Your task to perform on an android device: turn notification dots off Image 0: 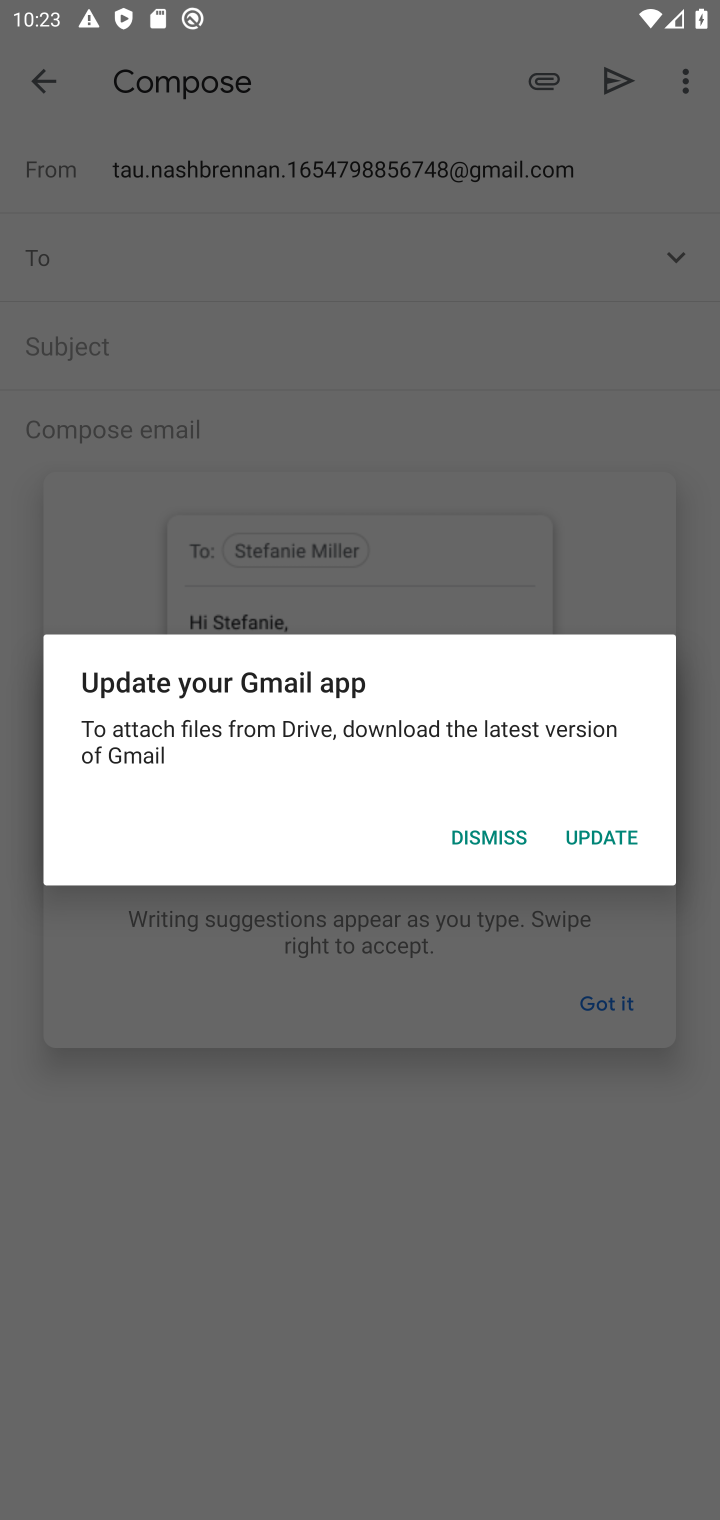
Step 0: press home button
Your task to perform on an android device: turn notification dots off Image 1: 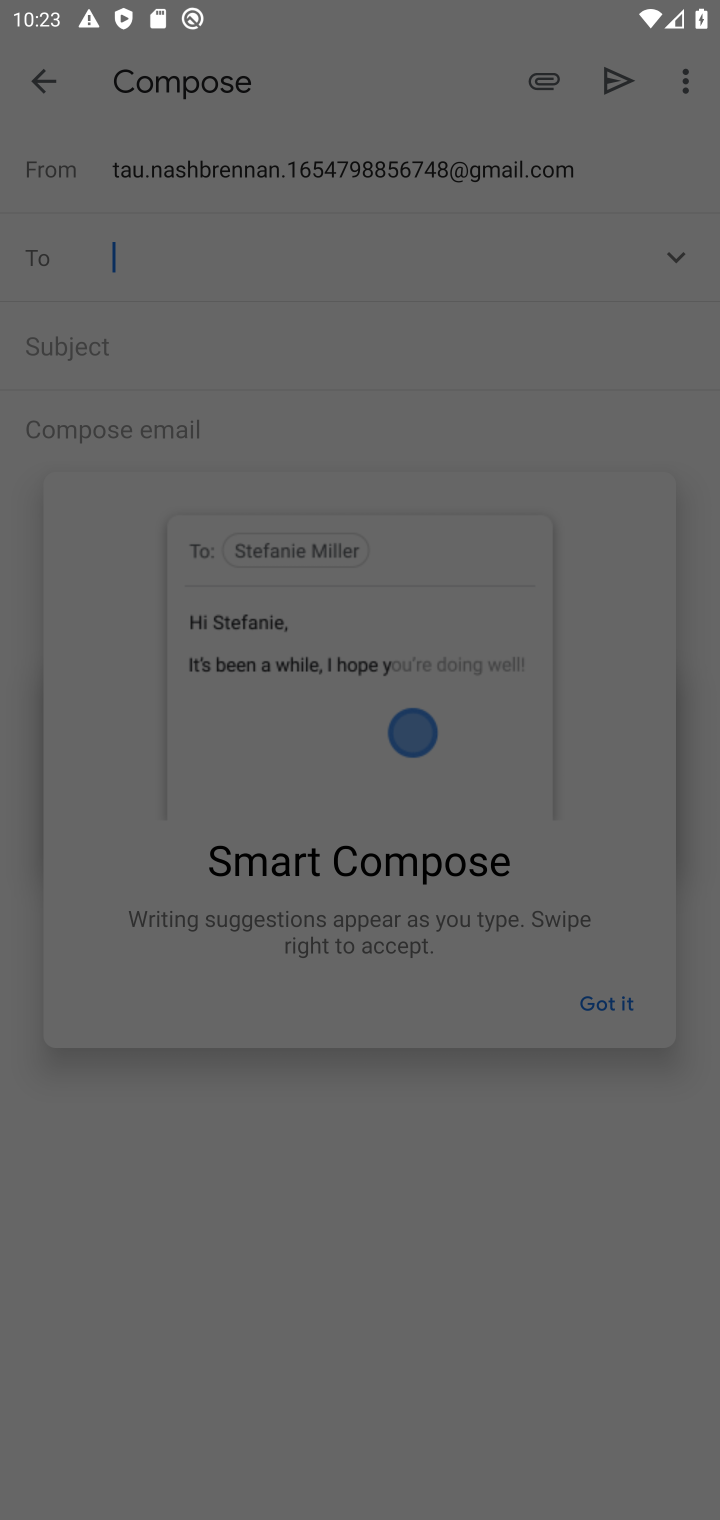
Step 1: press home button
Your task to perform on an android device: turn notification dots off Image 2: 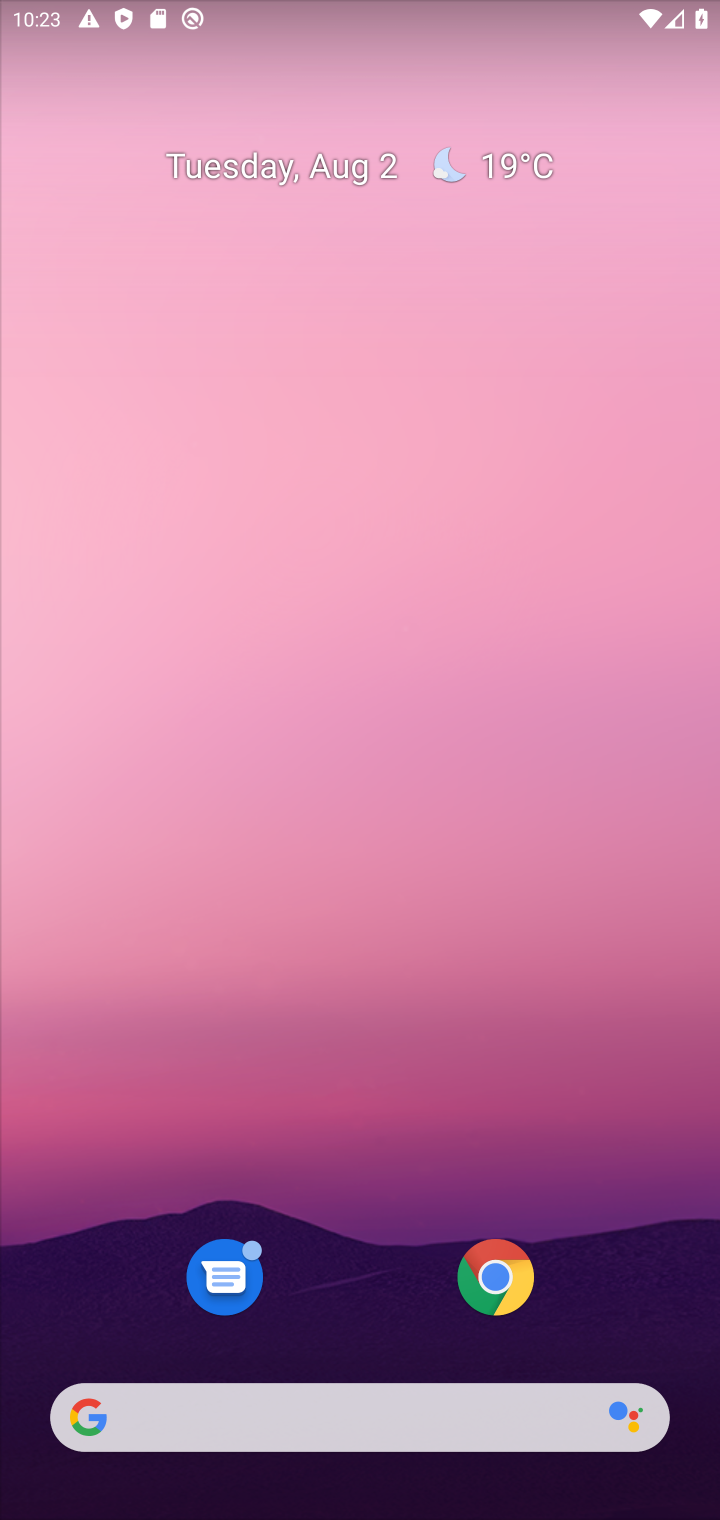
Step 2: drag from (392, 1223) to (441, 390)
Your task to perform on an android device: turn notification dots off Image 3: 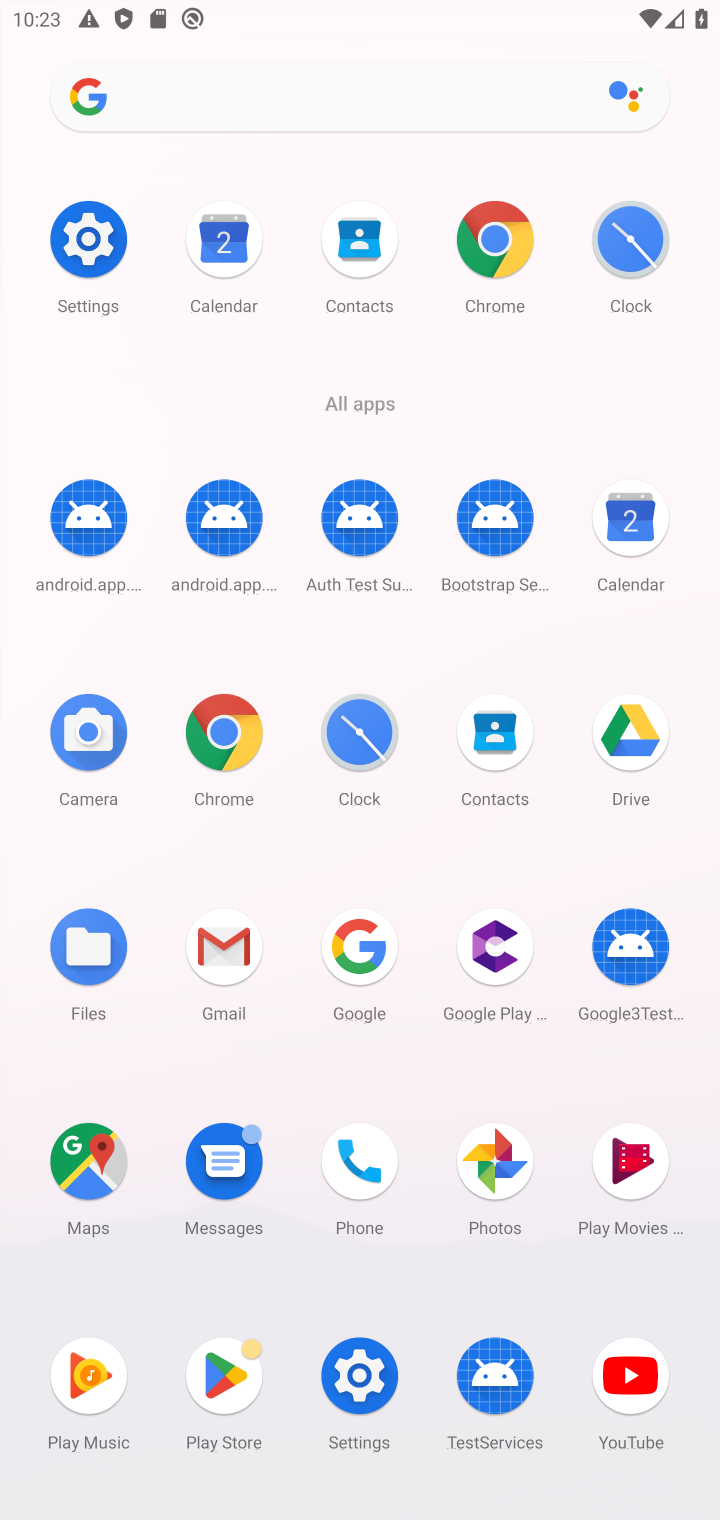
Step 3: click (82, 257)
Your task to perform on an android device: turn notification dots off Image 4: 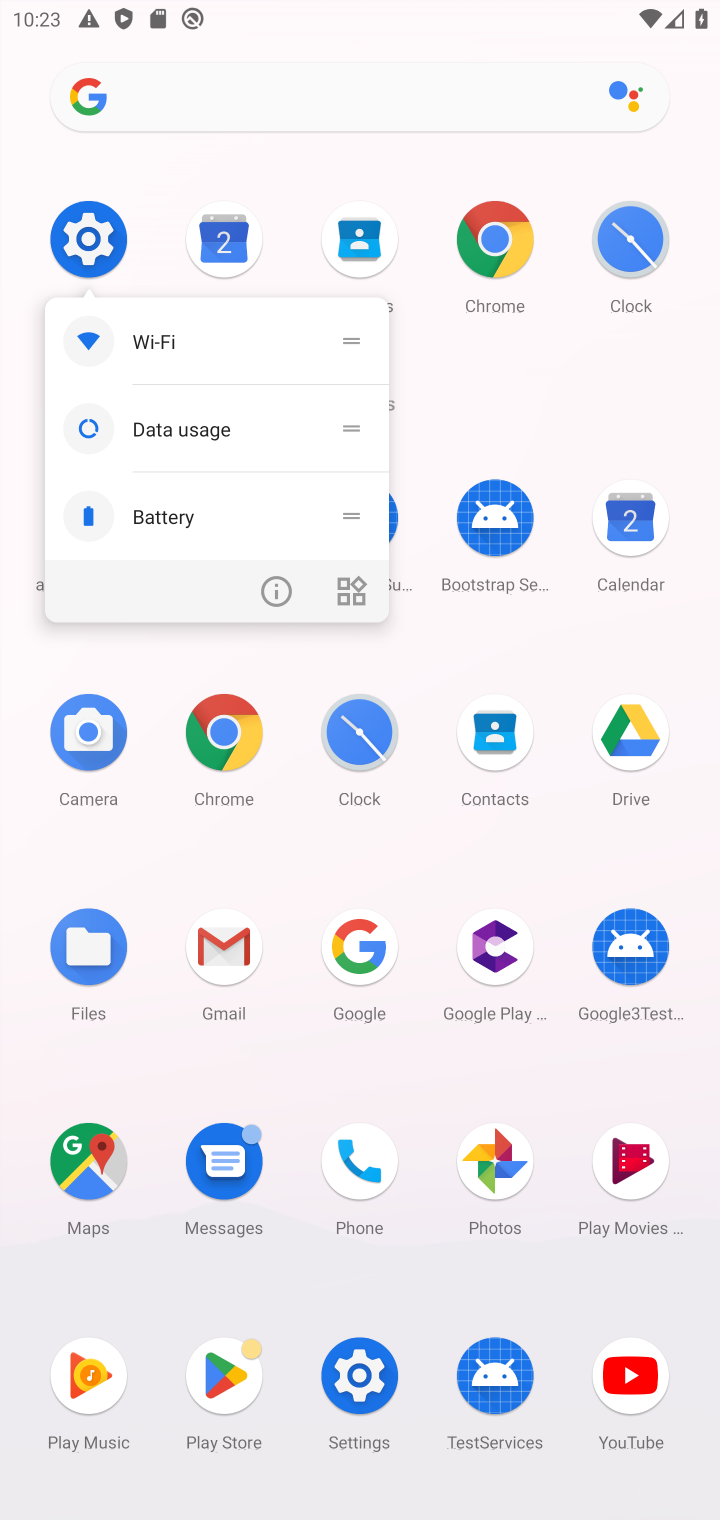
Step 4: click (101, 260)
Your task to perform on an android device: turn notification dots off Image 5: 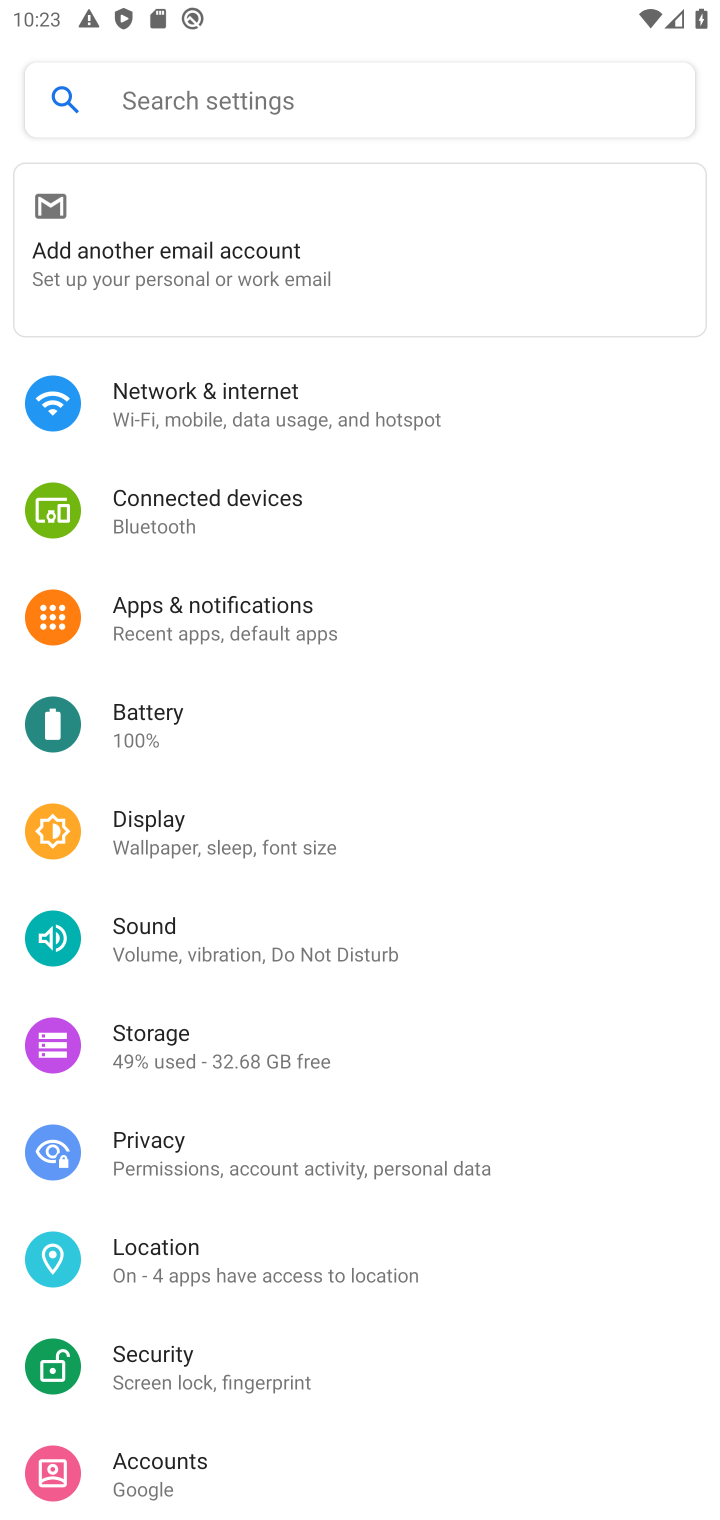
Step 5: click (233, 608)
Your task to perform on an android device: turn notification dots off Image 6: 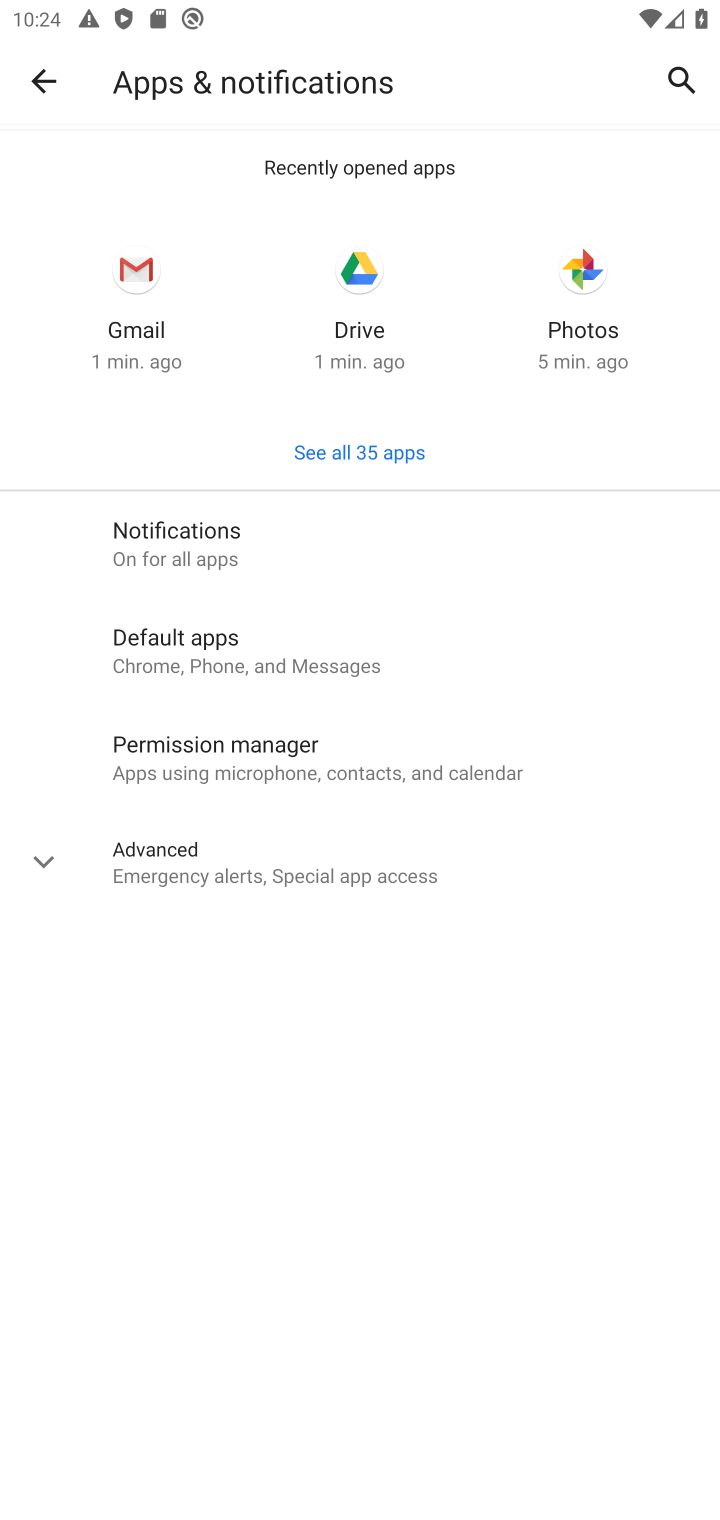
Step 6: click (204, 554)
Your task to perform on an android device: turn notification dots off Image 7: 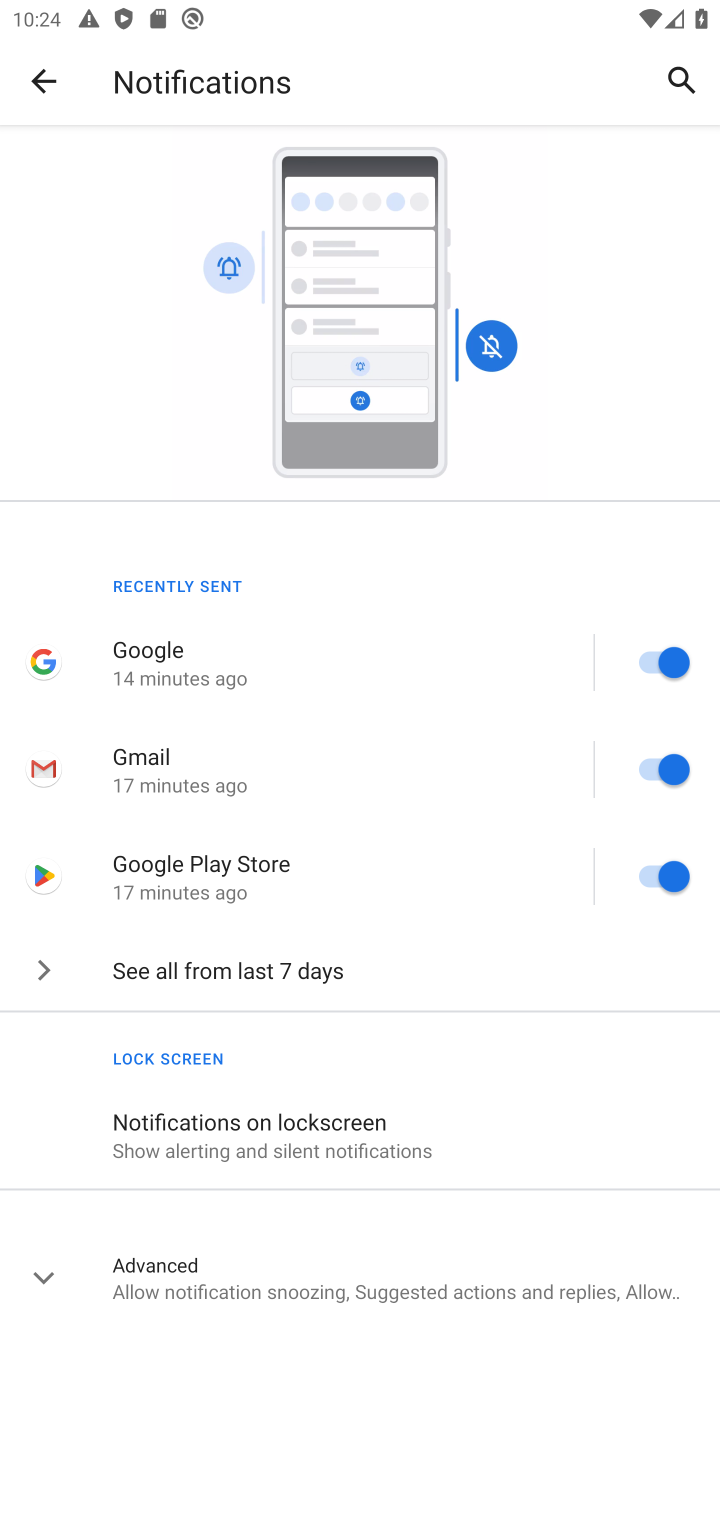
Step 7: click (162, 1275)
Your task to perform on an android device: turn notification dots off Image 8: 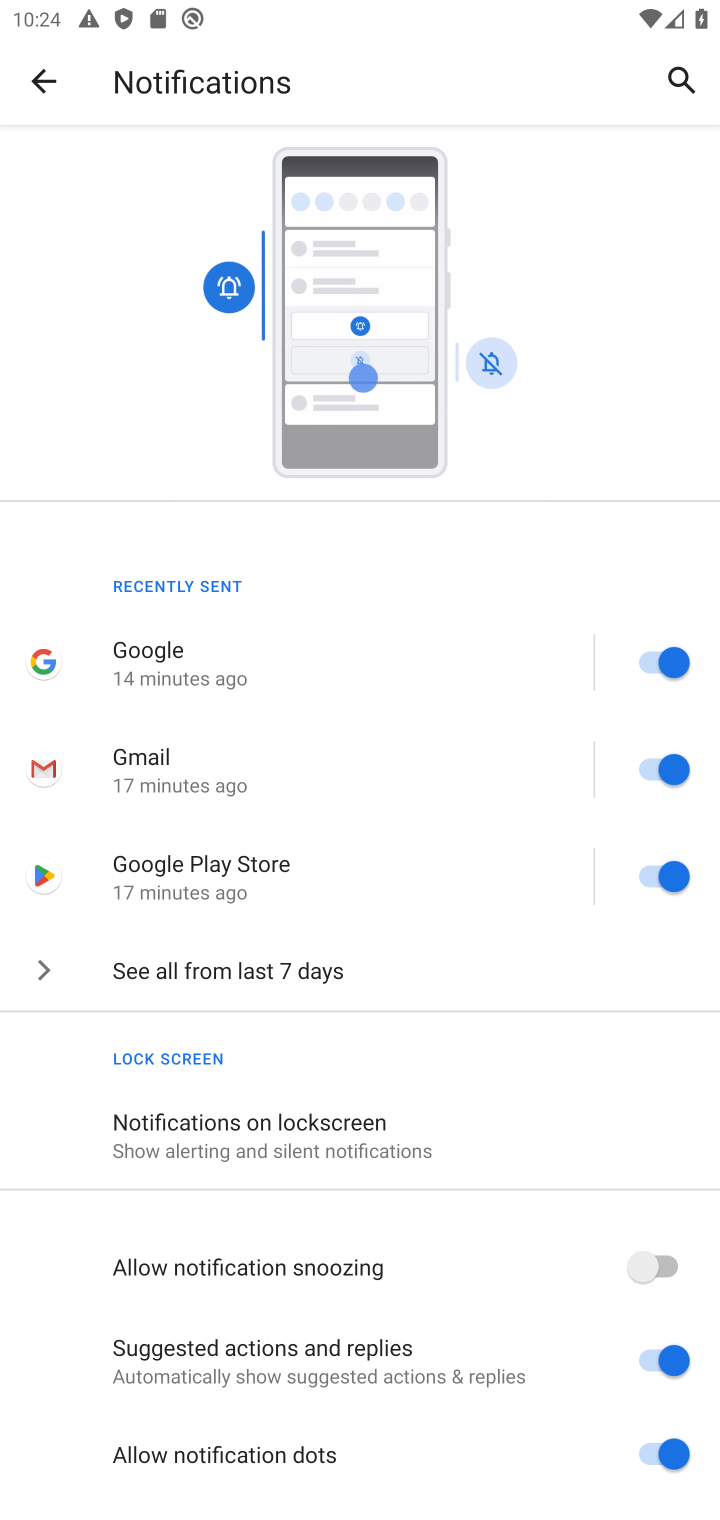
Step 8: click (679, 1462)
Your task to perform on an android device: turn notification dots off Image 9: 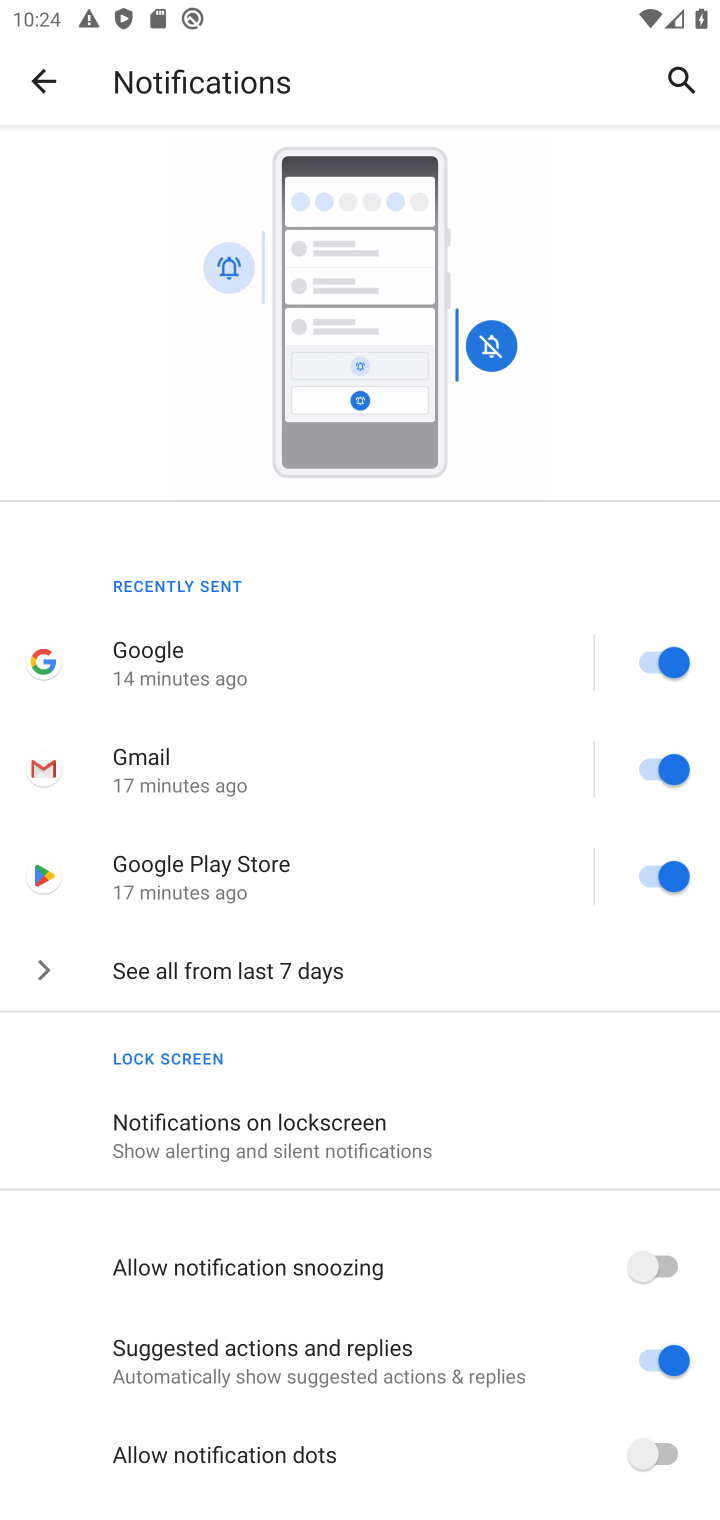
Step 9: task complete